Your task to perform on an android device: Set the phone to "Do not disturb". Image 0: 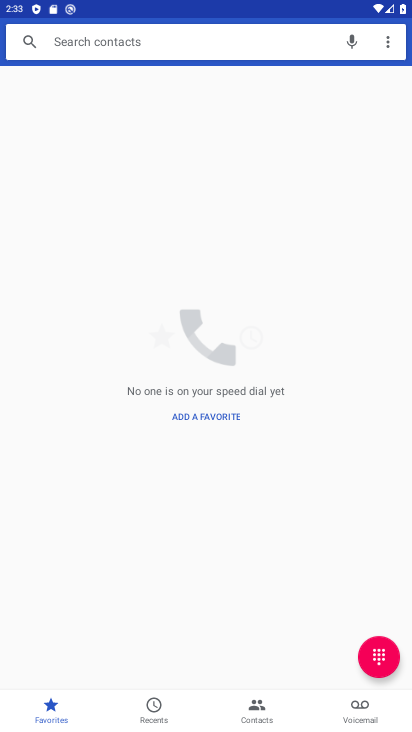
Step 0: press home button
Your task to perform on an android device: Set the phone to "Do not disturb". Image 1: 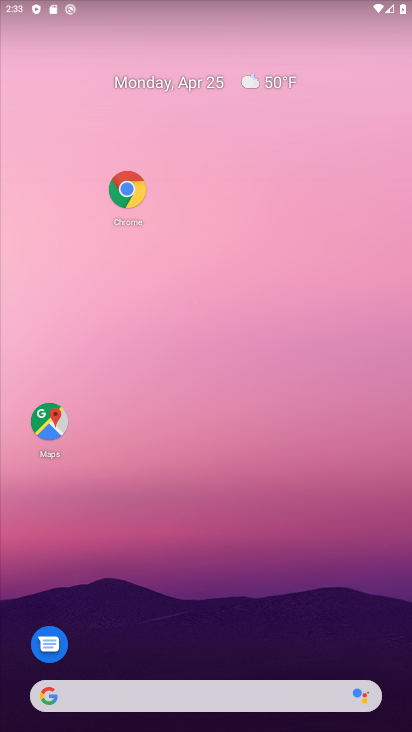
Step 1: drag from (121, 661) to (184, 244)
Your task to perform on an android device: Set the phone to "Do not disturb". Image 2: 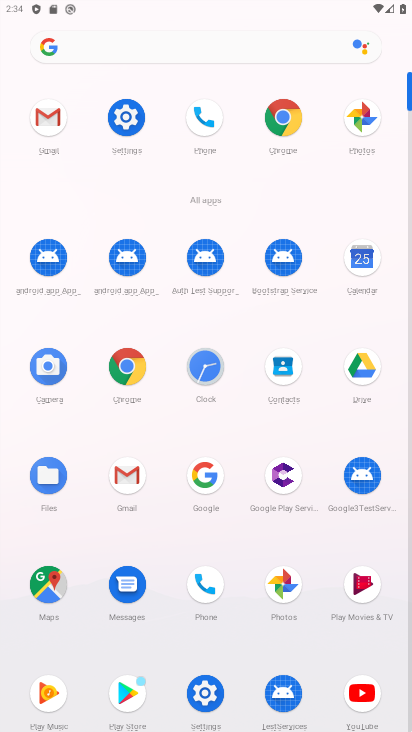
Step 2: drag from (198, 8) to (255, 483)
Your task to perform on an android device: Set the phone to "Do not disturb". Image 3: 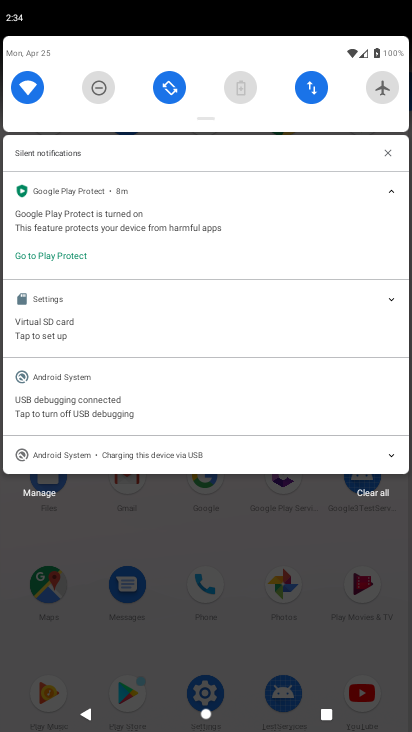
Step 3: click (96, 87)
Your task to perform on an android device: Set the phone to "Do not disturb". Image 4: 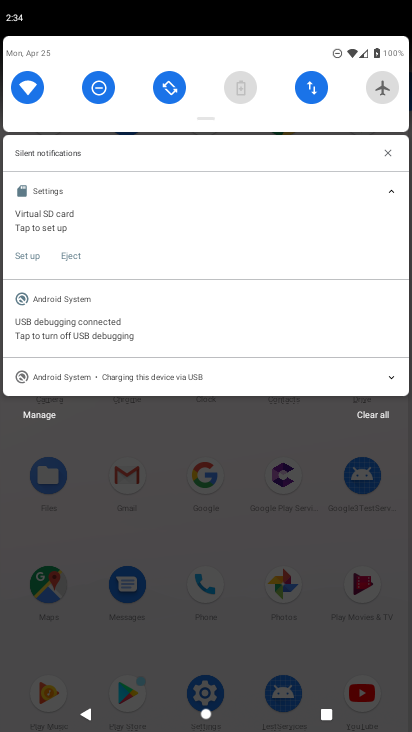
Step 4: task complete